Your task to perform on an android device: What's on my calendar tomorrow? Image 0: 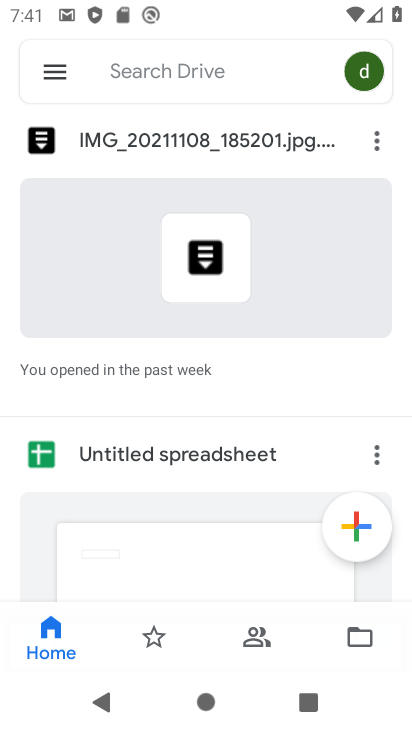
Step 0: press home button
Your task to perform on an android device: What's on my calendar tomorrow? Image 1: 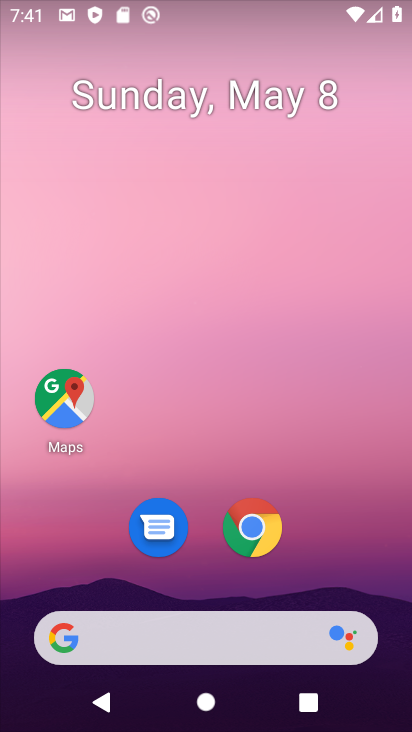
Step 1: drag from (320, 600) to (400, 22)
Your task to perform on an android device: What's on my calendar tomorrow? Image 2: 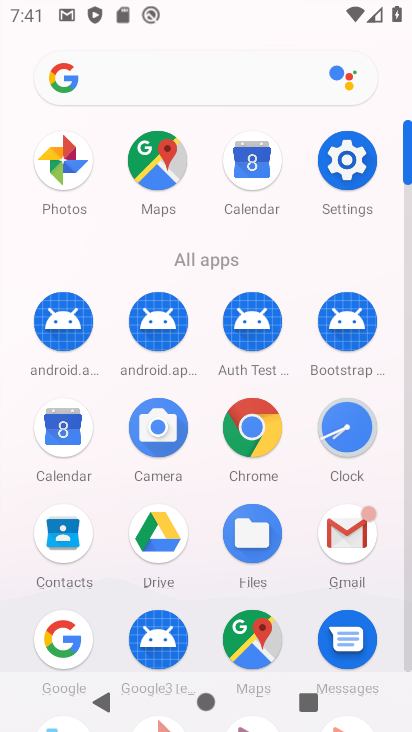
Step 2: click (66, 433)
Your task to perform on an android device: What's on my calendar tomorrow? Image 3: 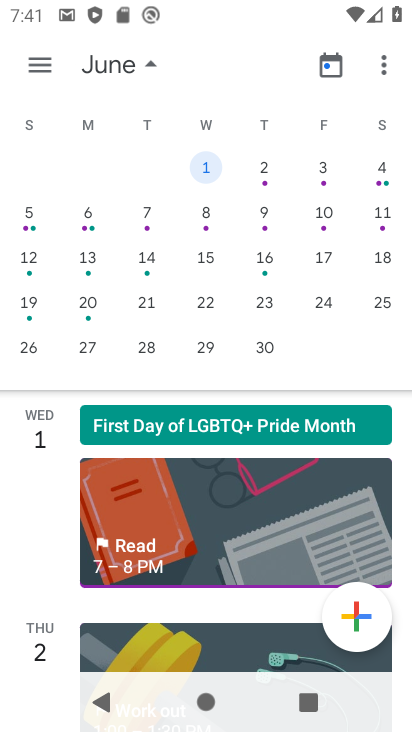
Step 3: drag from (81, 246) to (381, 297)
Your task to perform on an android device: What's on my calendar tomorrow? Image 4: 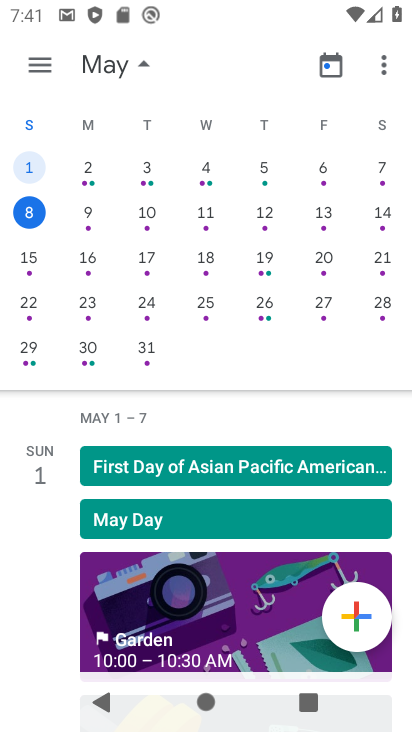
Step 4: click (86, 222)
Your task to perform on an android device: What's on my calendar tomorrow? Image 5: 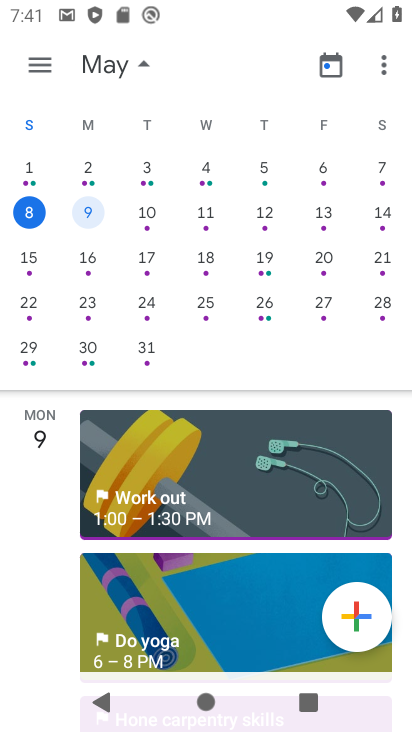
Step 5: task complete